Your task to perform on an android device: Open Youtube and go to the subscriptions tab Image 0: 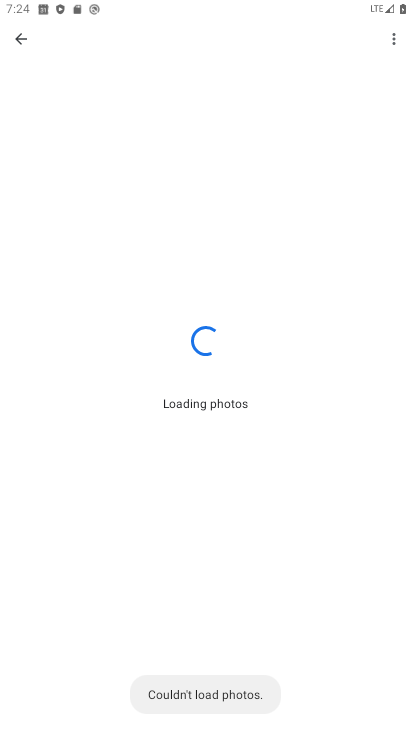
Step 0: press home button
Your task to perform on an android device: Open Youtube and go to the subscriptions tab Image 1: 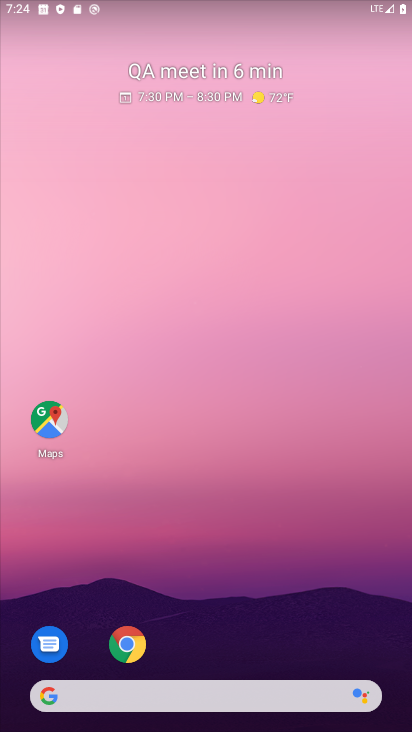
Step 1: drag from (255, 715) to (295, 131)
Your task to perform on an android device: Open Youtube and go to the subscriptions tab Image 2: 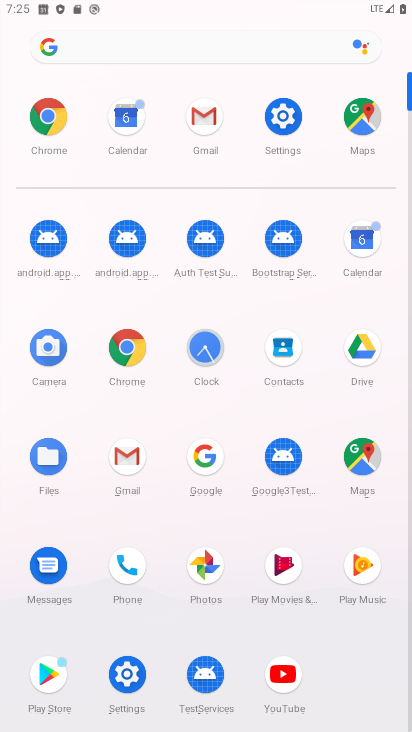
Step 2: click (267, 681)
Your task to perform on an android device: Open Youtube and go to the subscriptions tab Image 3: 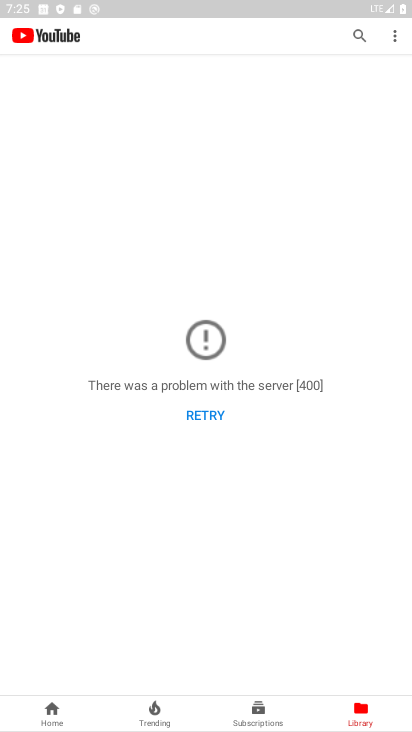
Step 3: click (251, 715)
Your task to perform on an android device: Open Youtube and go to the subscriptions tab Image 4: 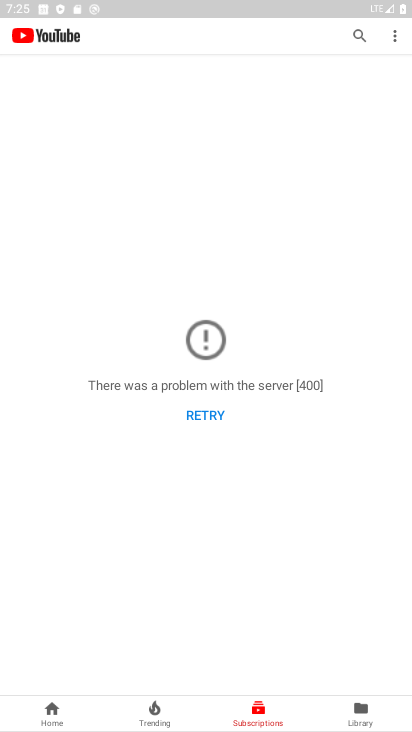
Step 4: task complete